Your task to perform on an android device: Open eBay Image 0: 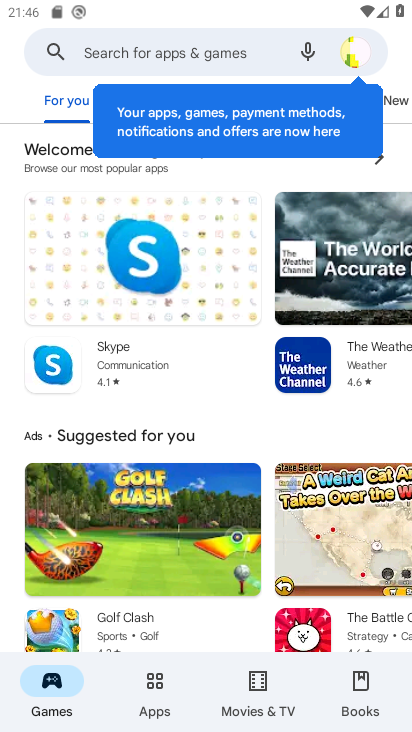
Step 0: press home button
Your task to perform on an android device: Open eBay Image 1: 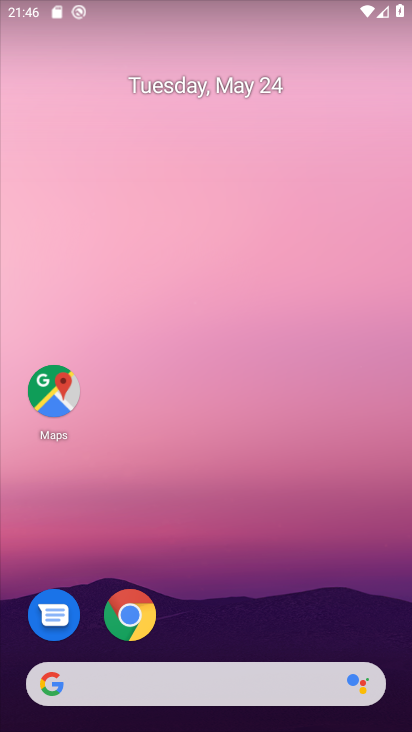
Step 1: click (127, 606)
Your task to perform on an android device: Open eBay Image 2: 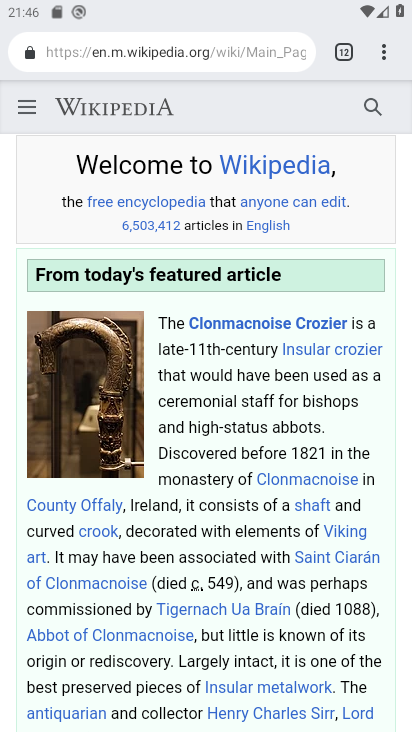
Step 2: click (367, 44)
Your task to perform on an android device: Open eBay Image 3: 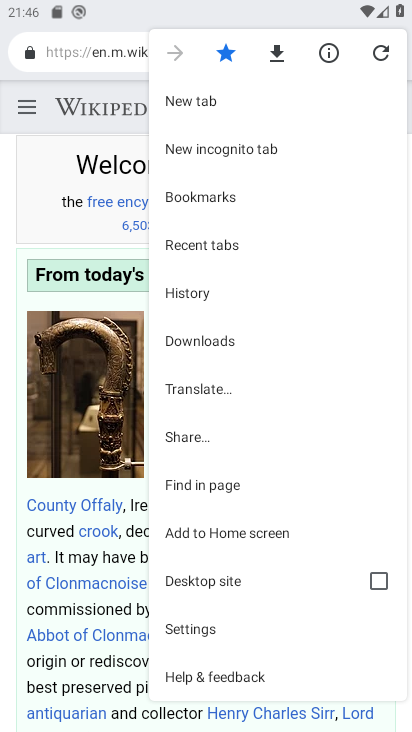
Step 3: click (223, 100)
Your task to perform on an android device: Open eBay Image 4: 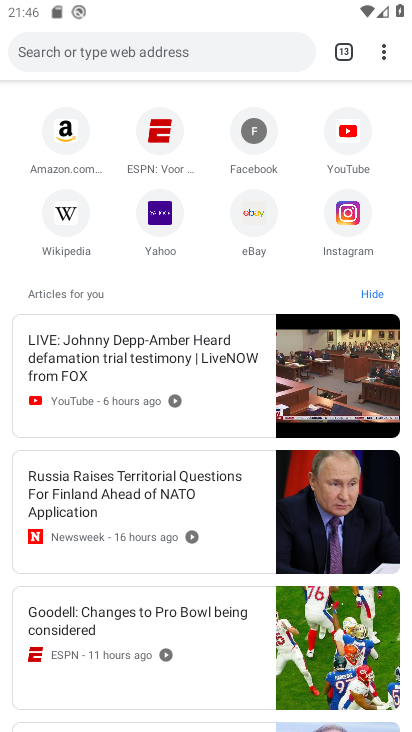
Step 4: click (144, 48)
Your task to perform on an android device: Open eBay Image 5: 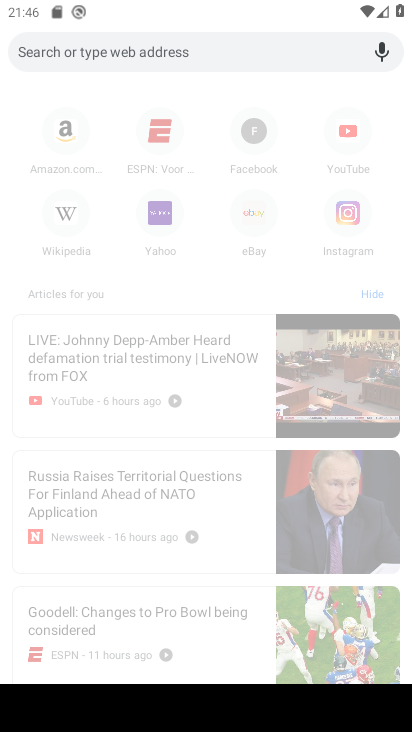
Step 5: type "eBay"
Your task to perform on an android device: Open eBay Image 6: 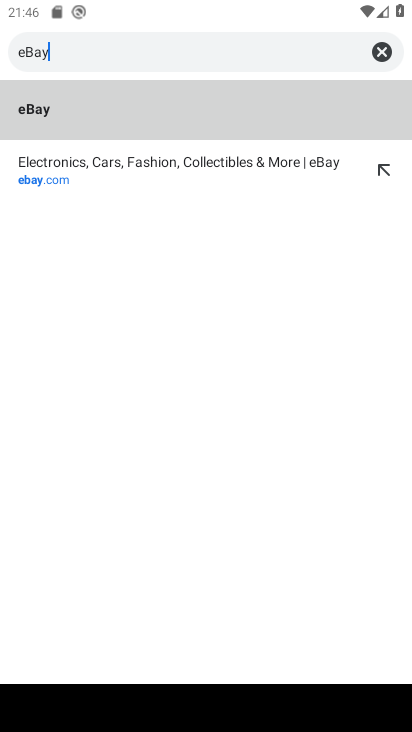
Step 6: click (135, 102)
Your task to perform on an android device: Open eBay Image 7: 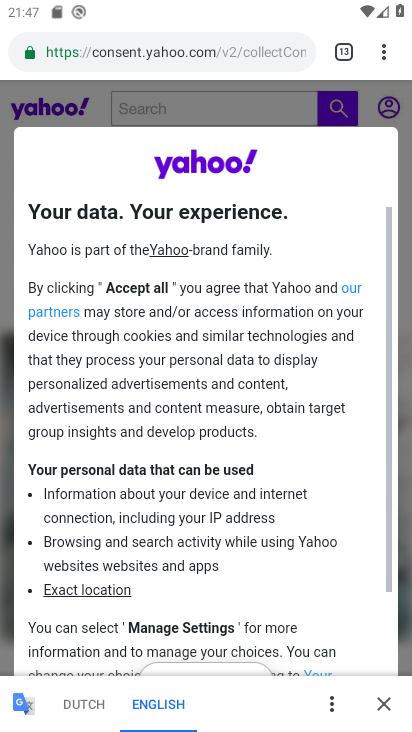
Step 7: task complete